Your task to perform on an android device: Open Youtube and go to the subscriptions tab Image 0: 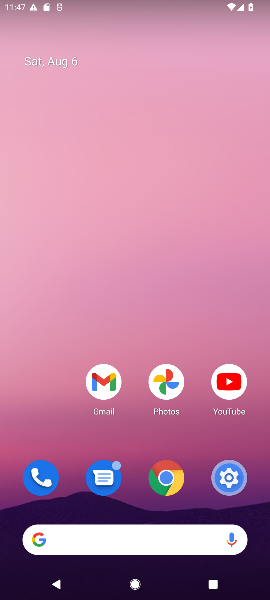
Step 0: click (221, 380)
Your task to perform on an android device: Open Youtube and go to the subscriptions tab Image 1: 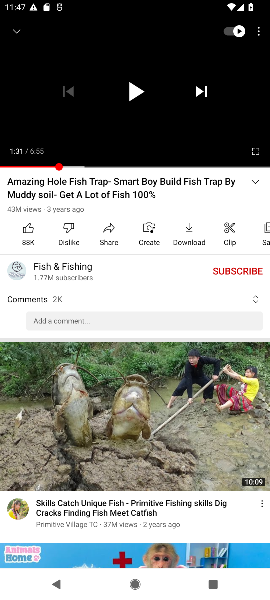
Step 1: drag from (158, 522) to (153, 233)
Your task to perform on an android device: Open Youtube and go to the subscriptions tab Image 2: 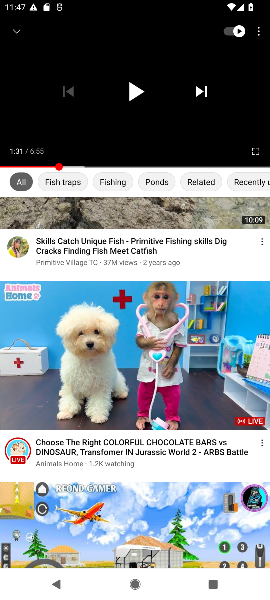
Step 2: drag from (103, 51) to (143, 379)
Your task to perform on an android device: Open Youtube and go to the subscriptions tab Image 3: 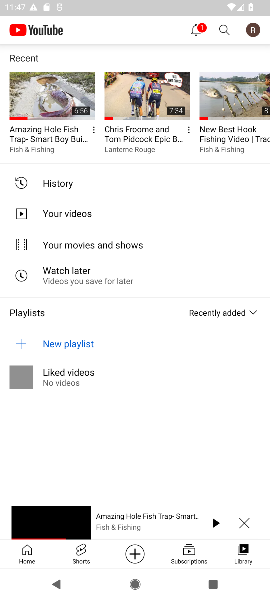
Step 3: click (246, 518)
Your task to perform on an android device: Open Youtube and go to the subscriptions tab Image 4: 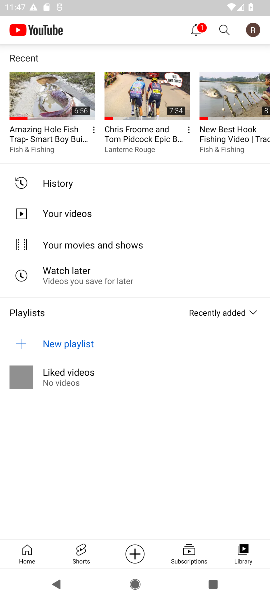
Step 4: click (189, 554)
Your task to perform on an android device: Open Youtube and go to the subscriptions tab Image 5: 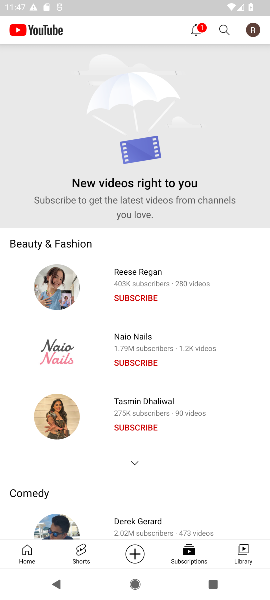
Step 5: task complete